Your task to perform on an android device: Add usb-c to usb-a to the cart on target, then select checkout. Image 0: 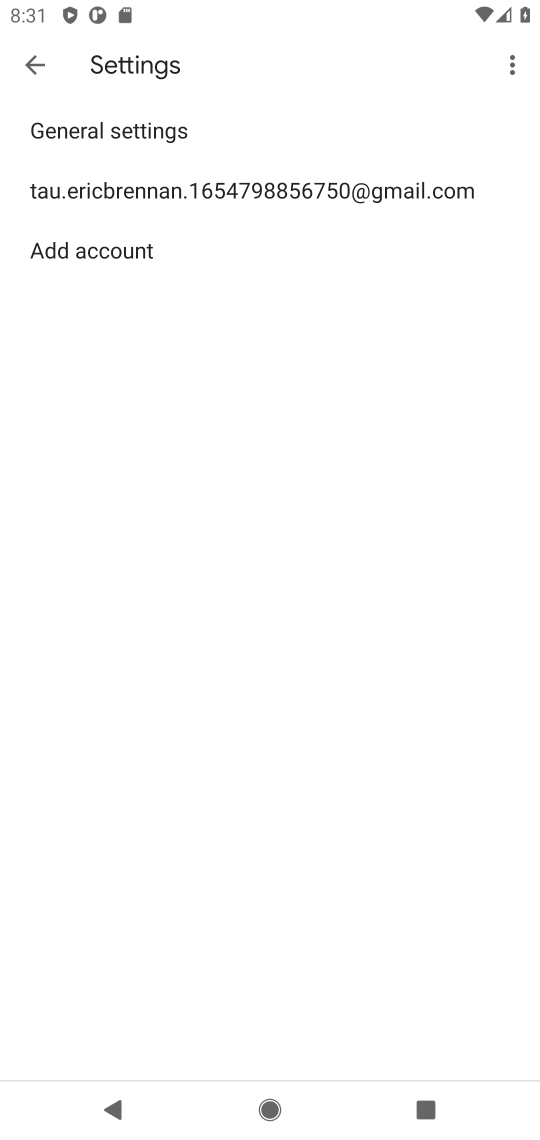
Step 0: press home button
Your task to perform on an android device: Add usb-c to usb-a to the cart on target, then select checkout. Image 1: 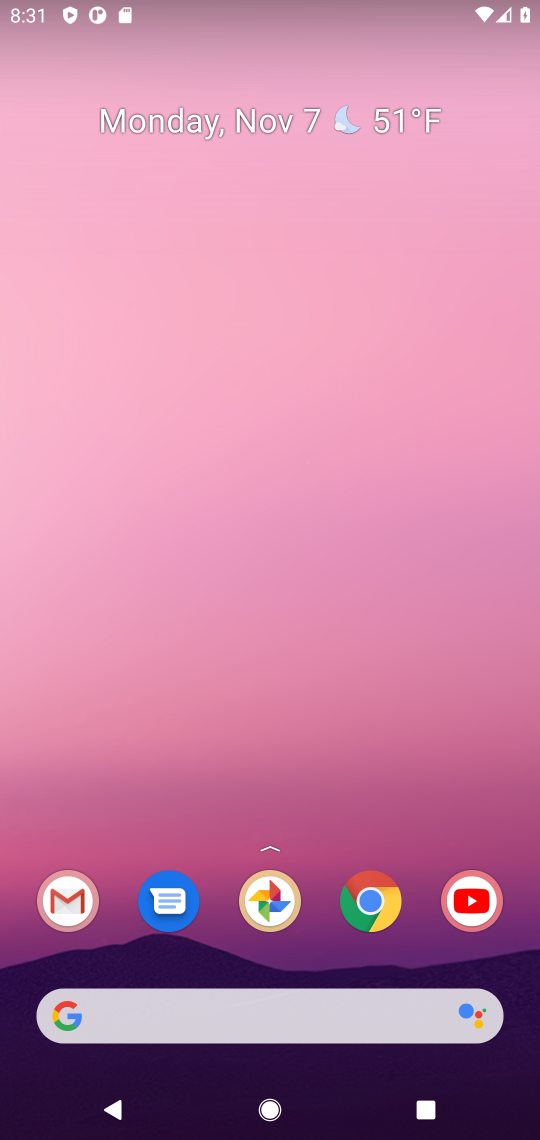
Step 1: click (373, 922)
Your task to perform on an android device: Add usb-c to usb-a to the cart on target, then select checkout. Image 2: 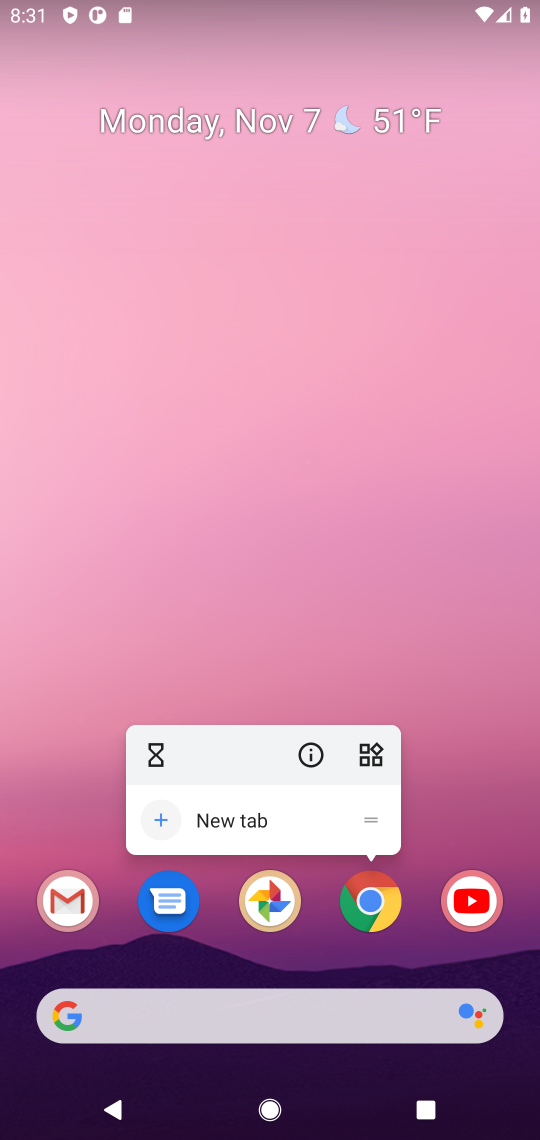
Step 2: click (354, 889)
Your task to perform on an android device: Add usb-c to usb-a to the cart on target, then select checkout. Image 3: 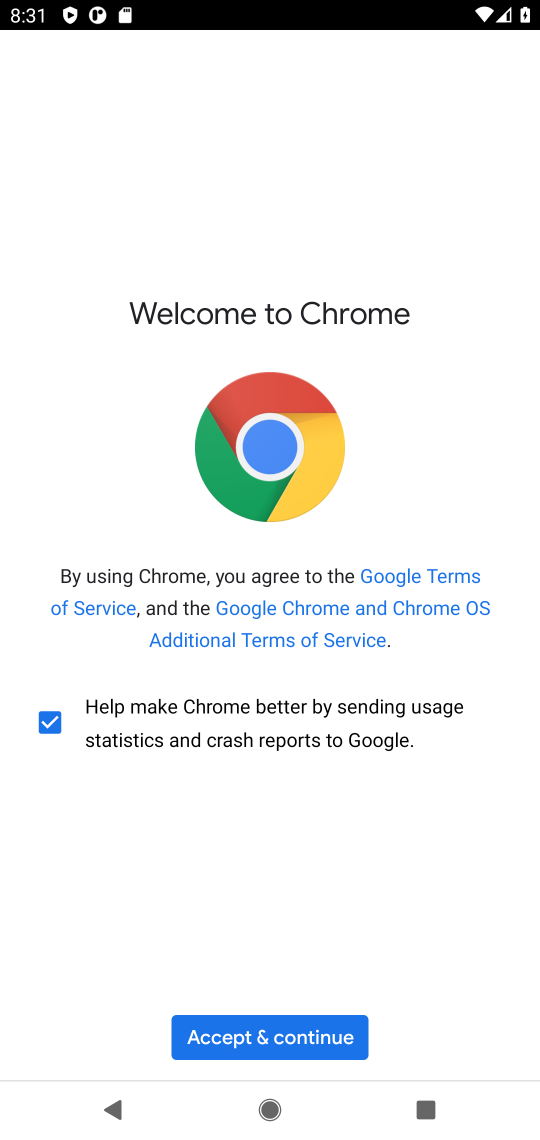
Step 3: click (291, 1049)
Your task to perform on an android device: Add usb-c to usb-a to the cart on target, then select checkout. Image 4: 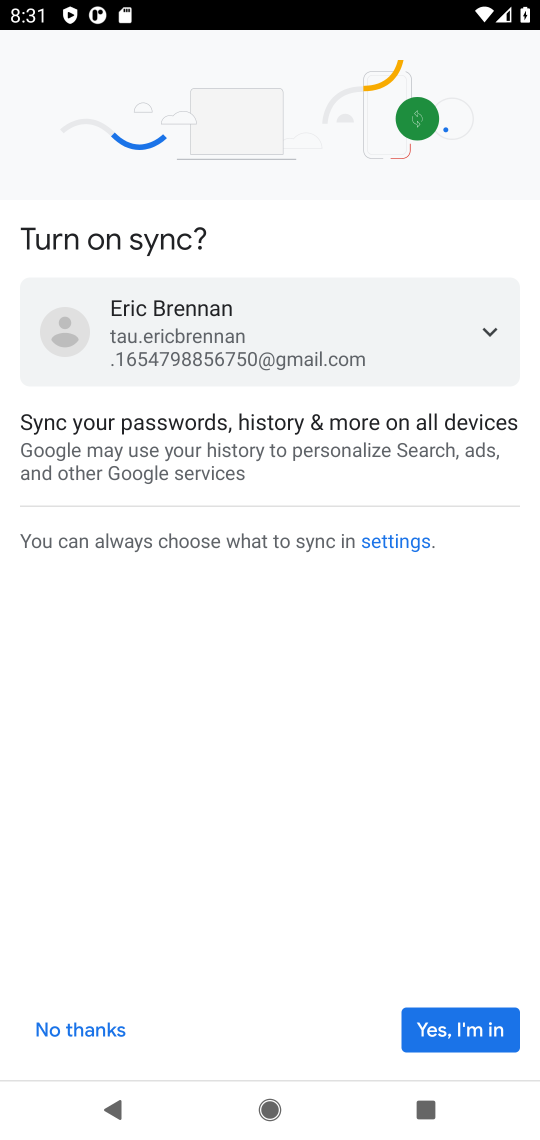
Step 4: click (434, 1062)
Your task to perform on an android device: Add usb-c to usb-a to the cart on target, then select checkout. Image 5: 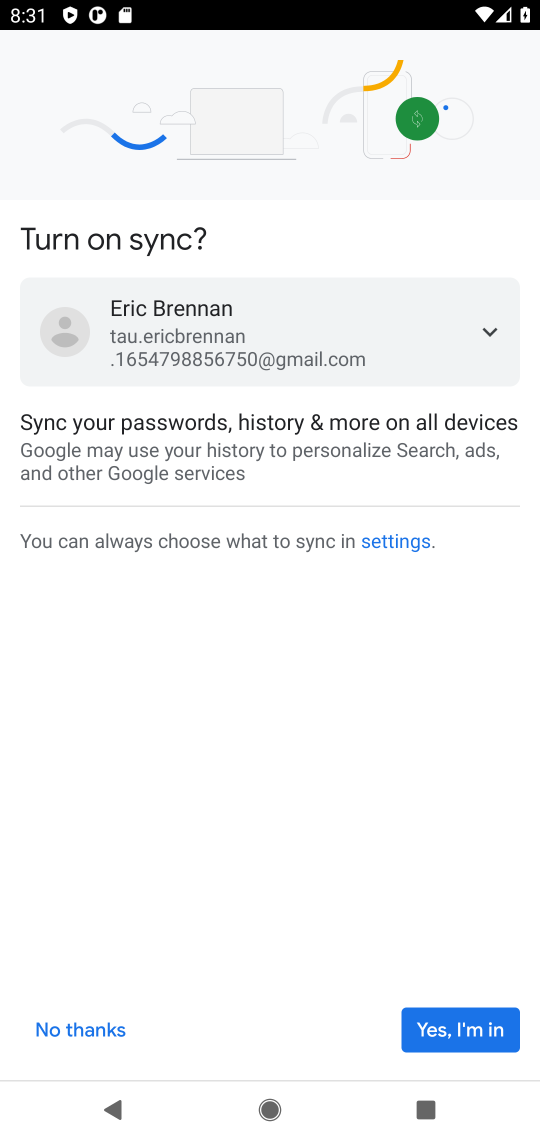
Step 5: click (441, 1035)
Your task to perform on an android device: Add usb-c to usb-a to the cart on target, then select checkout. Image 6: 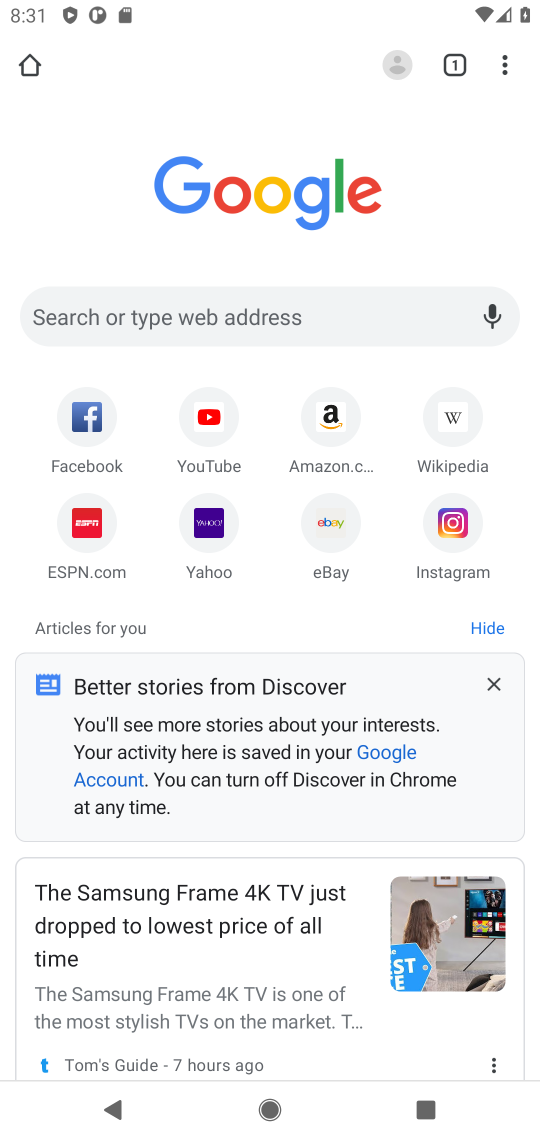
Step 6: click (189, 315)
Your task to perform on an android device: Add usb-c to usb-a to the cart on target, then select checkout. Image 7: 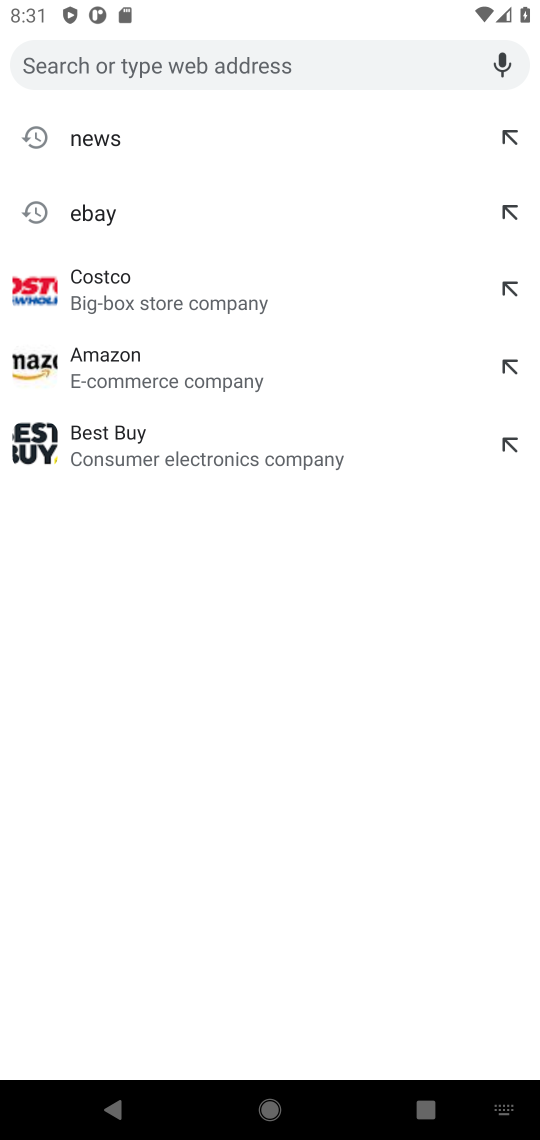
Step 7: click (181, 57)
Your task to perform on an android device: Add usb-c to usb-a to the cart on target, then select checkout. Image 8: 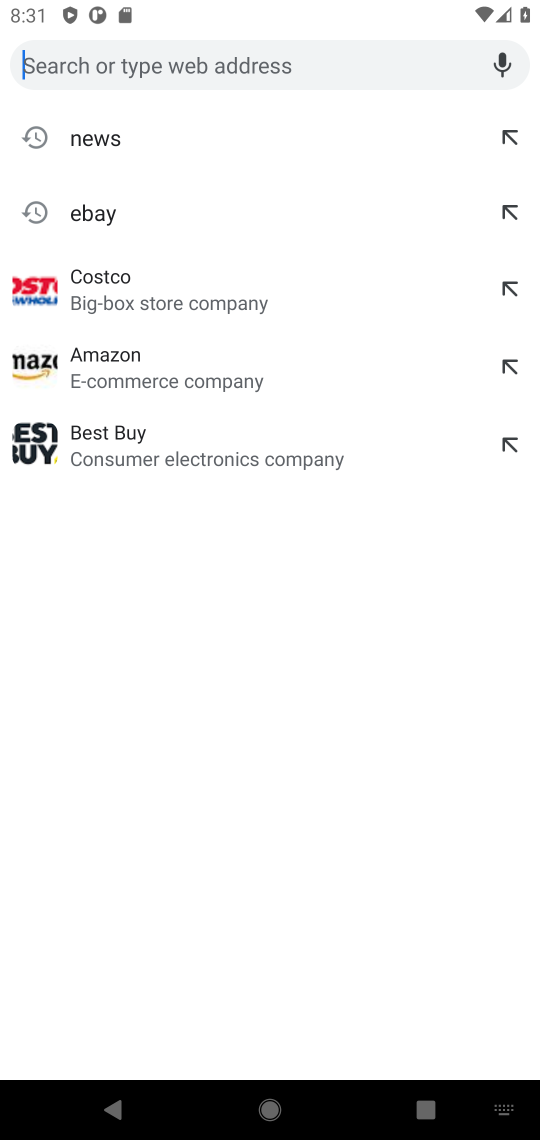
Step 8: type "target"
Your task to perform on an android device: Add usb-c to usb-a to the cart on target, then select checkout. Image 9: 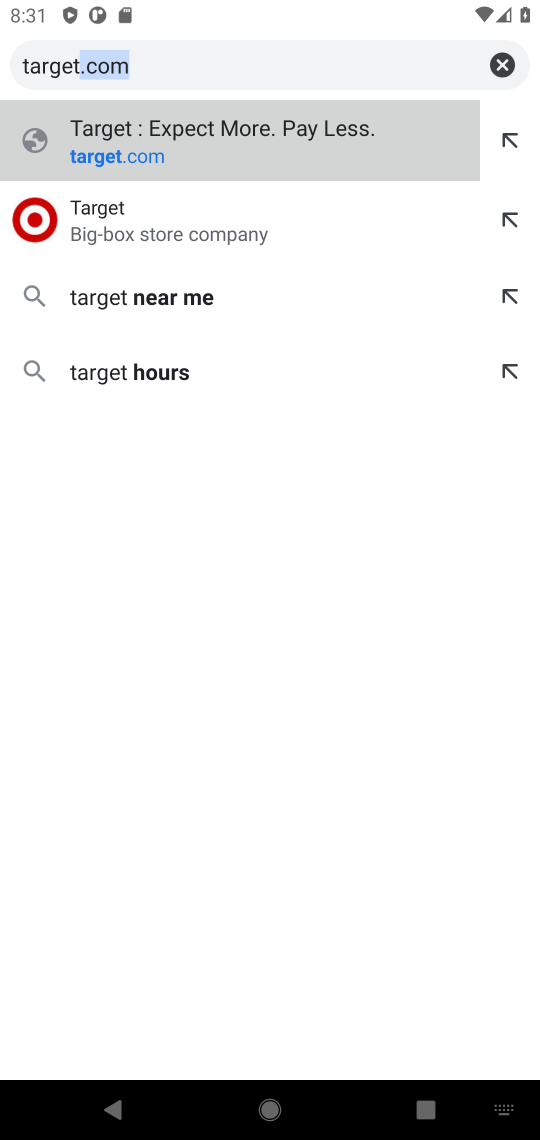
Step 9: click (237, 149)
Your task to perform on an android device: Add usb-c to usb-a to the cart on target, then select checkout. Image 10: 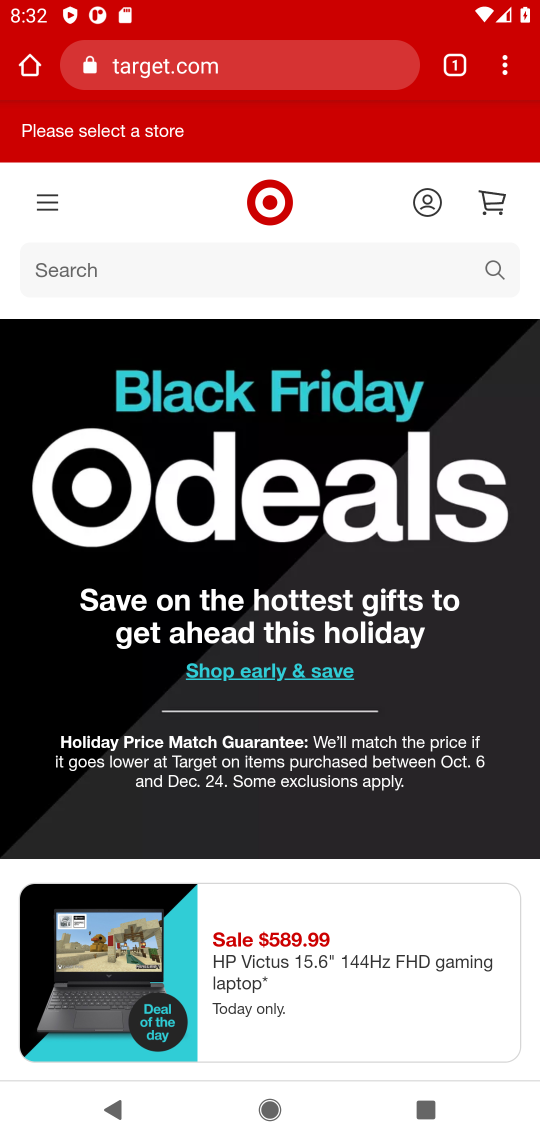
Step 10: click (124, 273)
Your task to perform on an android device: Add usb-c to usb-a to the cart on target, then select checkout. Image 11: 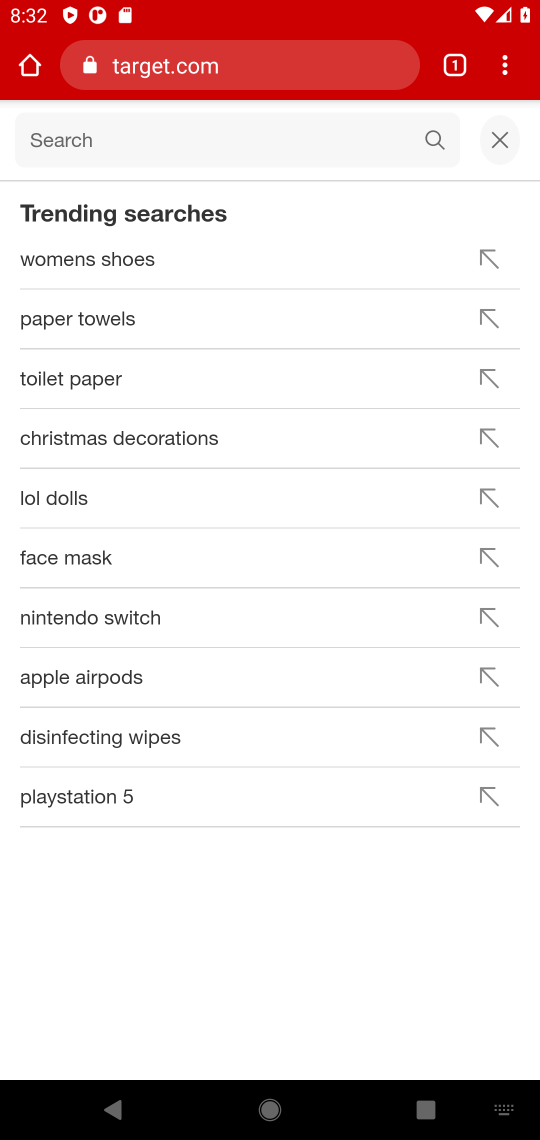
Step 11: click (103, 160)
Your task to perform on an android device: Add usb-c to usb-a to the cart on target, then select checkout. Image 12: 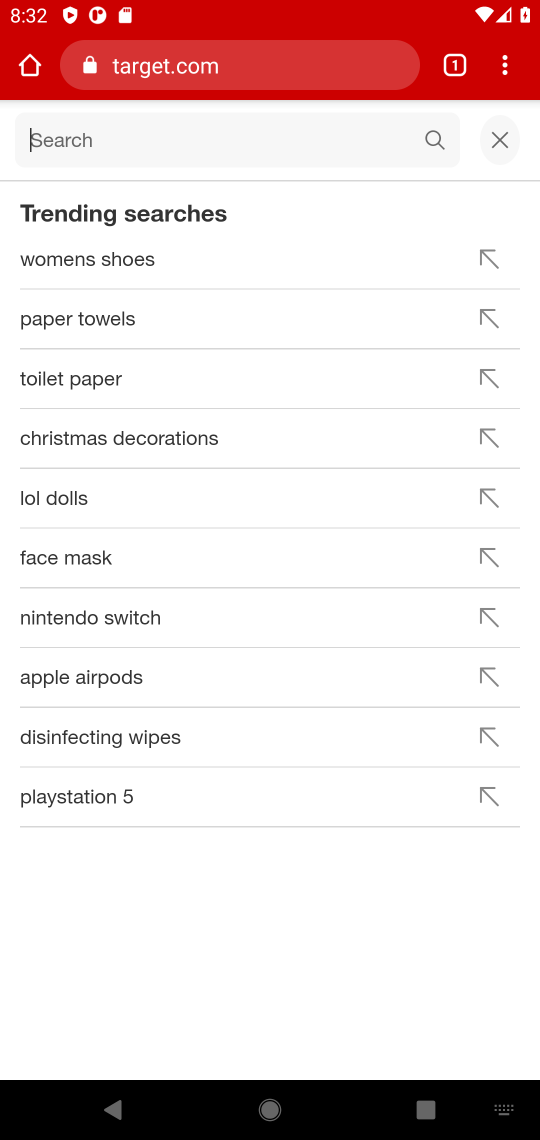
Step 12: type "usb-c to usb-a"
Your task to perform on an android device: Add usb-c to usb-a to the cart on target, then select checkout. Image 13: 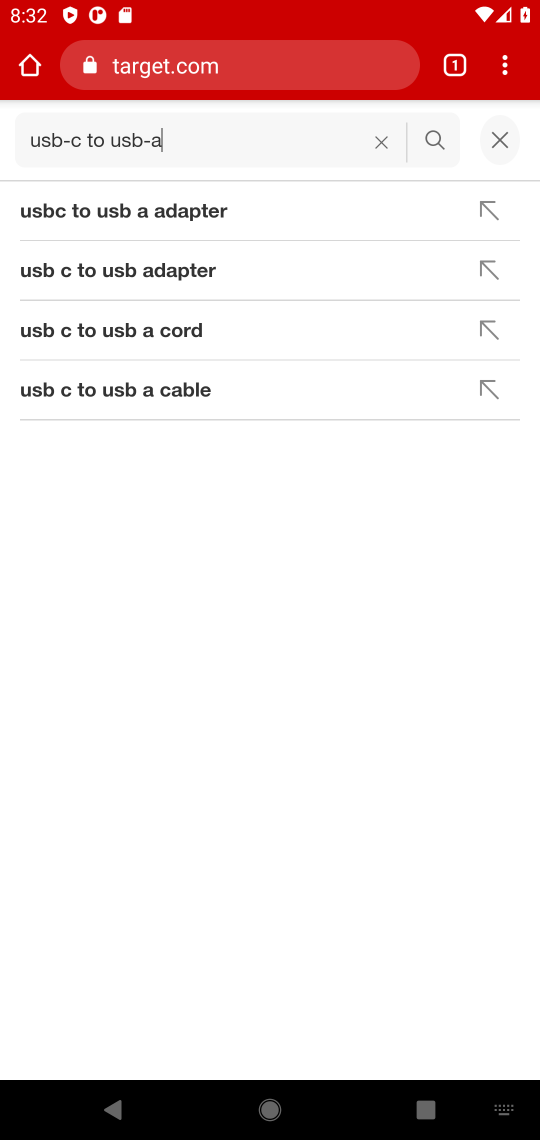
Step 13: click (166, 335)
Your task to perform on an android device: Add usb-c to usb-a to the cart on target, then select checkout. Image 14: 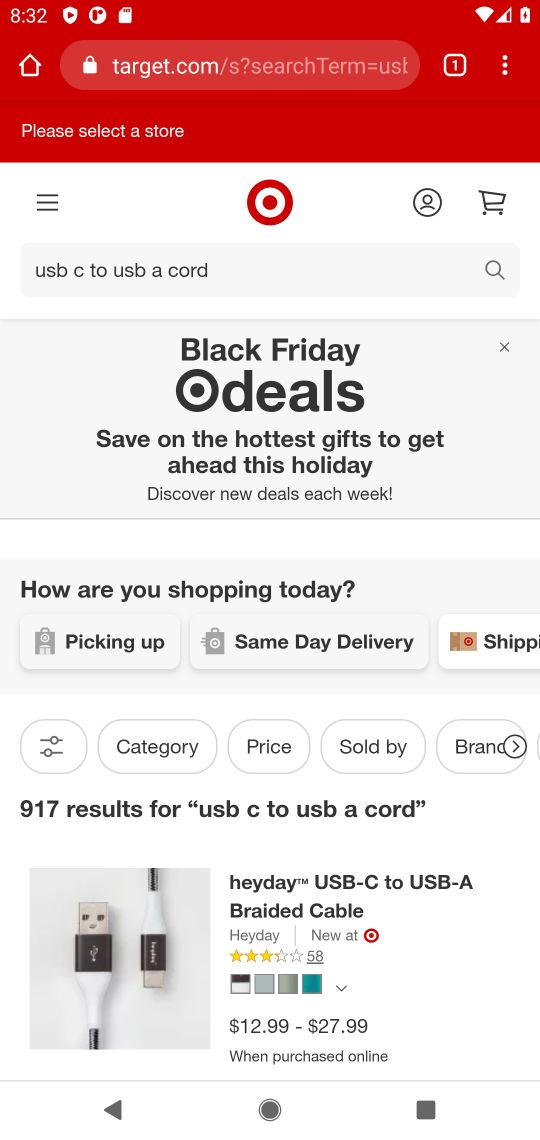
Step 14: drag from (237, 1011) to (316, 615)
Your task to perform on an android device: Add usb-c to usb-a to the cart on target, then select checkout. Image 15: 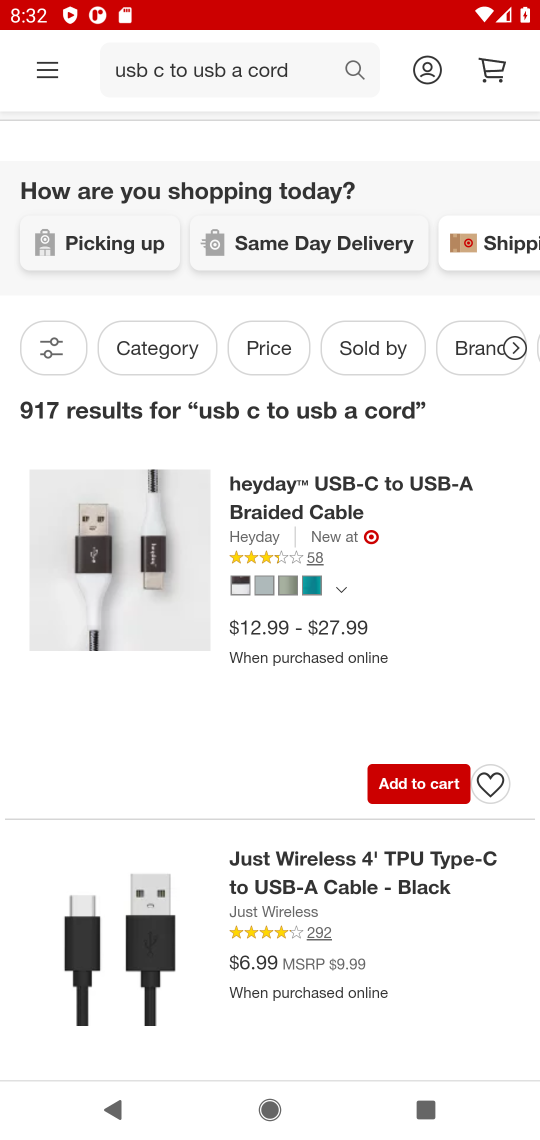
Step 15: click (420, 772)
Your task to perform on an android device: Add usb-c to usb-a to the cart on target, then select checkout. Image 16: 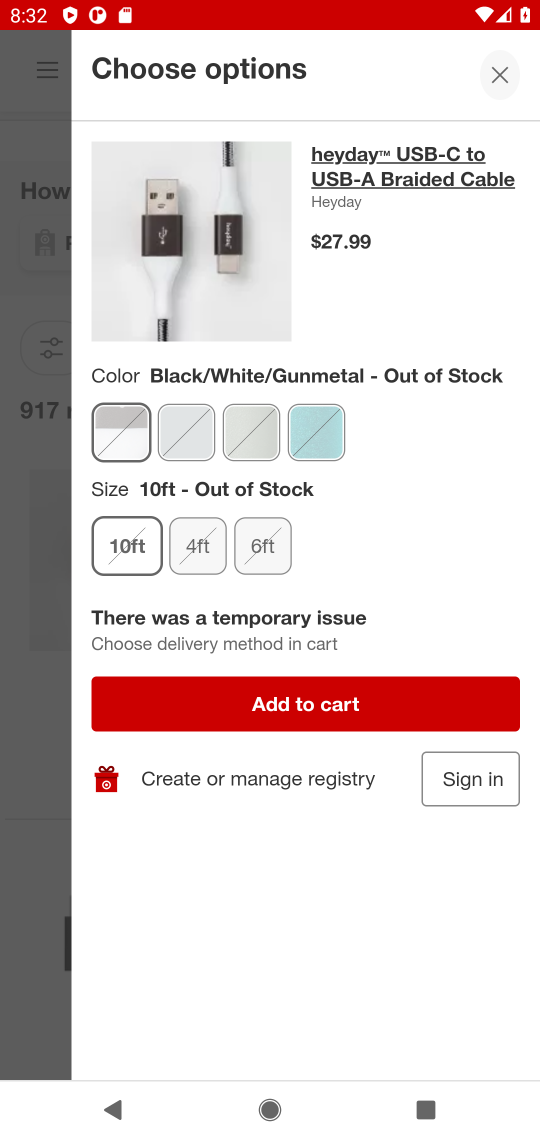
Step 16: click (340, 704)
Your task to perform on an android device: Add usb-c to usb-a to the cart on target, then select checkout. Image 17: 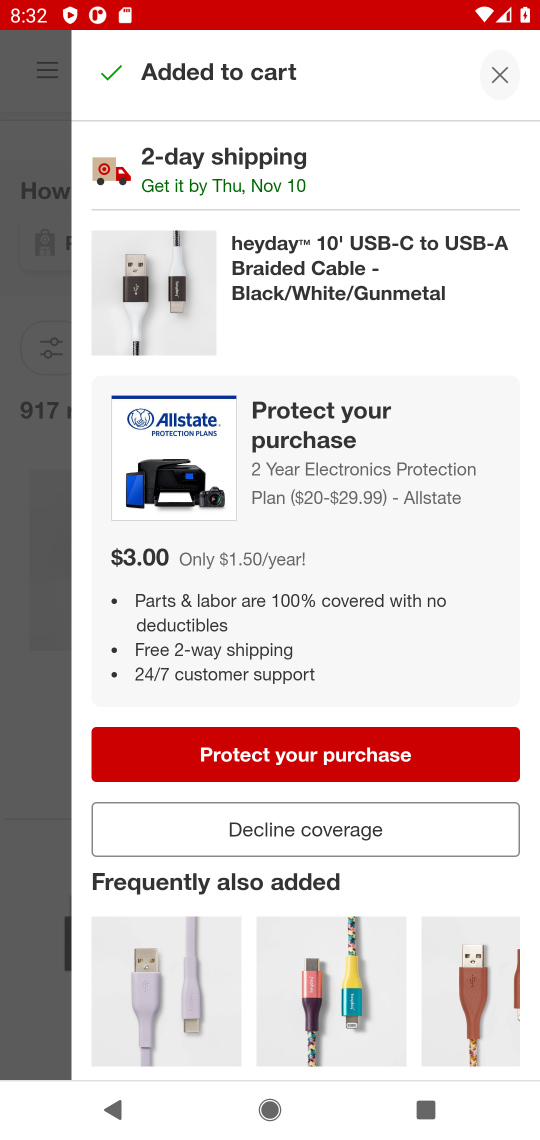
Step 17: task complete